Your task to perform on an android device: toggle pop-ups in chrome Image 0: 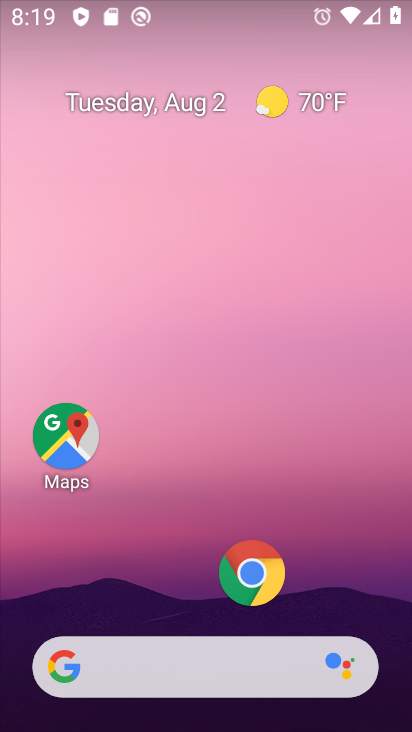
Step 0: press home button
Your task to perform on an android device: toggle pop-ups in chrome Image 1: 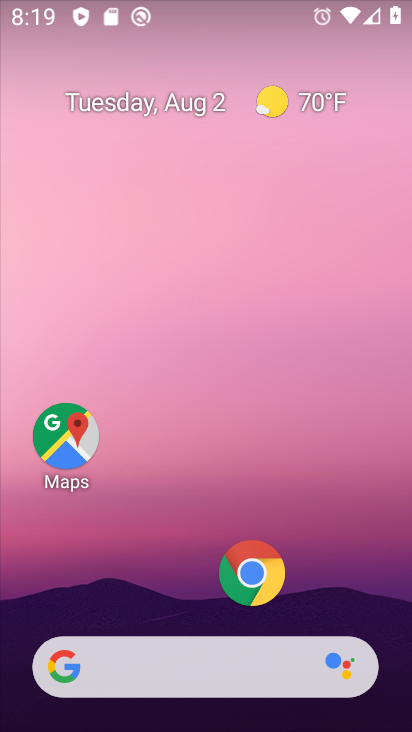
Step 1: click (246, 571)
Your task to perform on an android device: toggle pop-ups in chrome Image 2: 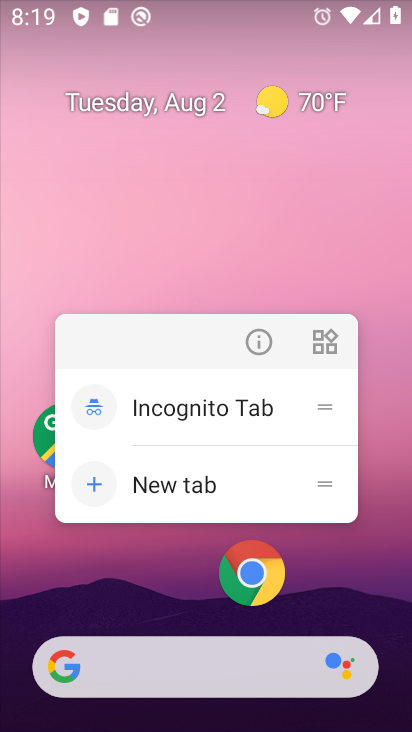
Step 2: click (246, 571)
Your task to perform on an android device: toggle pop-ups in chrome Image 3: 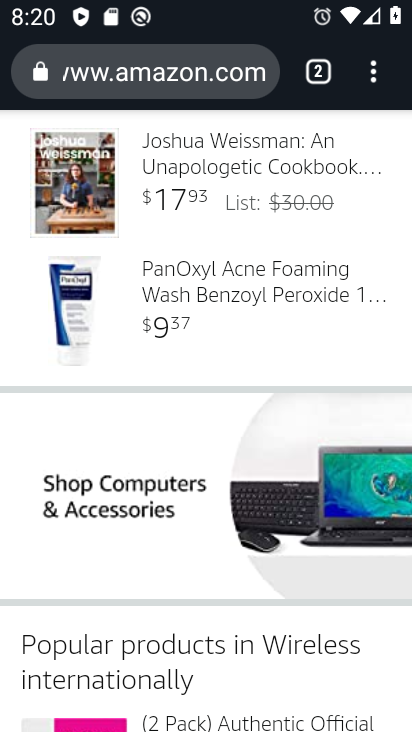
Step 3: click (369, 75)
Your task to perform on an android device: toggle pop-ups in chrome Image 4: 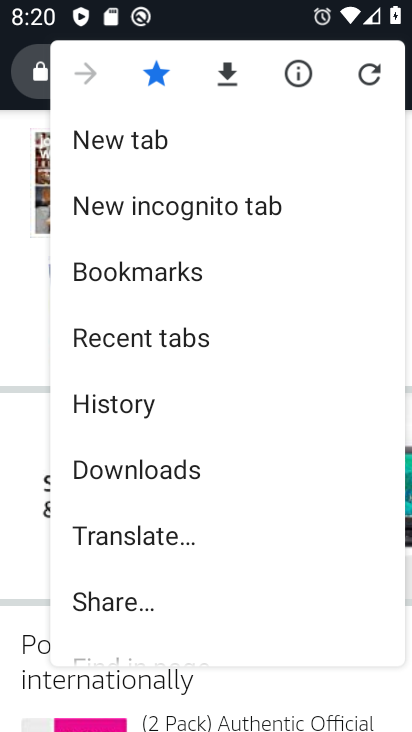
Step 4: drag from (199, 589) to (189, 158)
Your task to perform on an android device: toggle pop-ups in chrome Image 5: 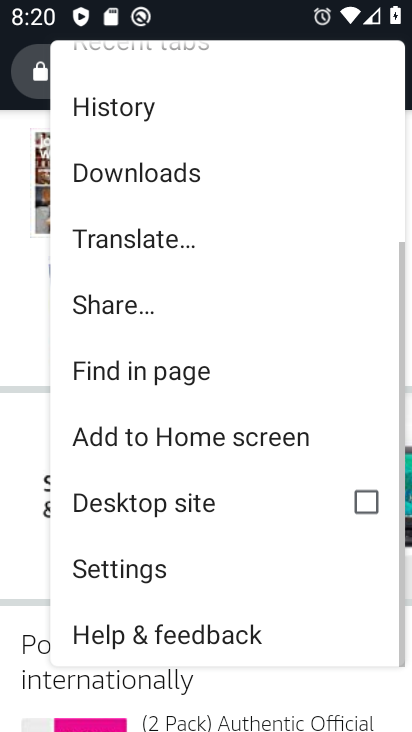
Step 5: click (177, 566)
Your task to perform on an android device: toggle pop-ups in chrome Image 6: 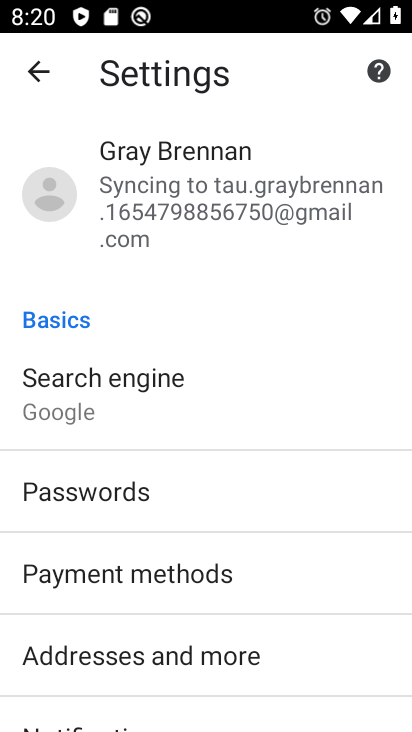
Step 6: drag from (276, 680) to (274, 273)
Your task to perform on an android device: toggle pop-ups in chrome Image 7: 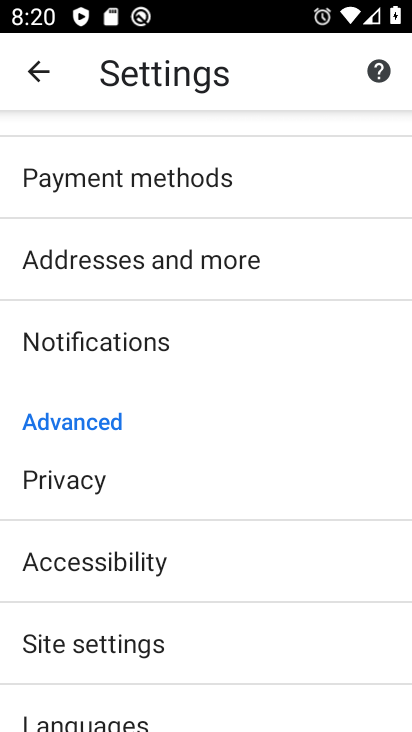
Step 7: click (179, 645)
Your task to perform on an android device: toggle pop-ups in chrome Image 8: 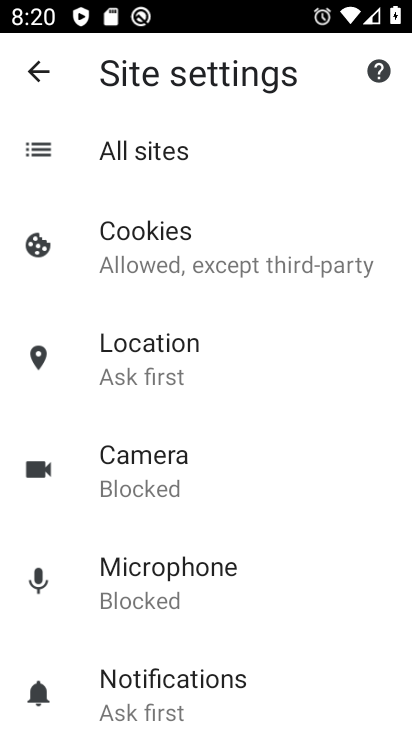
Step 8: drag from (266, 687) to (278, 337)
Your task to perform on an android device: toggle pop-ups in chrome Image 9: 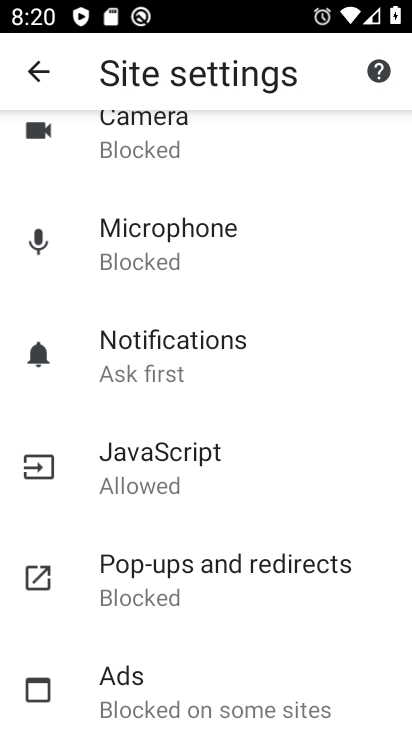
Step 9: click (209, 585)
Your task to perform on an android device: toggle pop-ups in chrome Image 10: 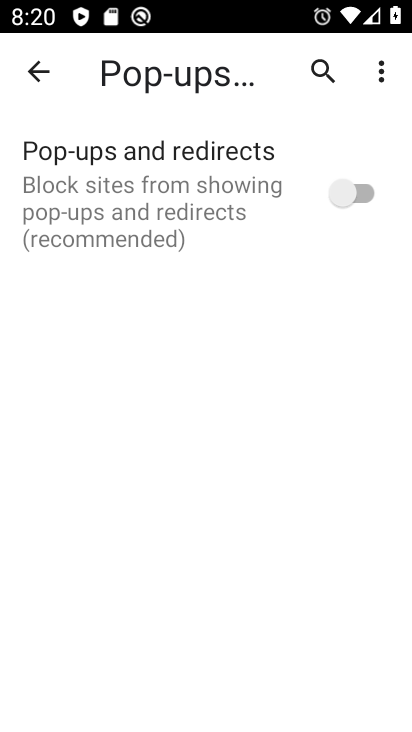
Step 10: click (360, 188)
Your task to perform on an android device: toggle pop-ups in chrome Image 11: 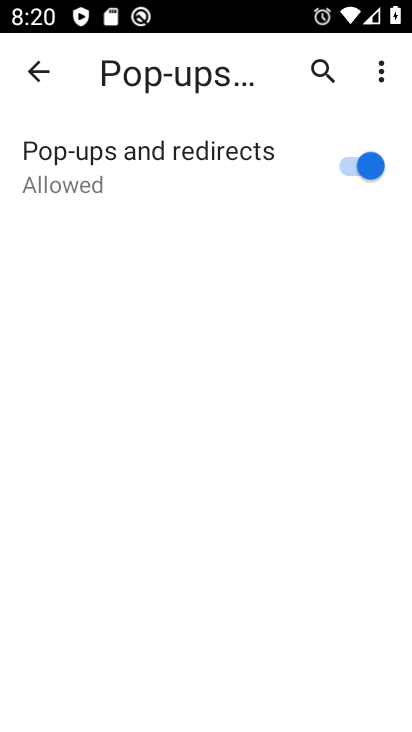
Step 11: task complete